Your task to perform on an android device: turn off improve location accuracy Image 0: 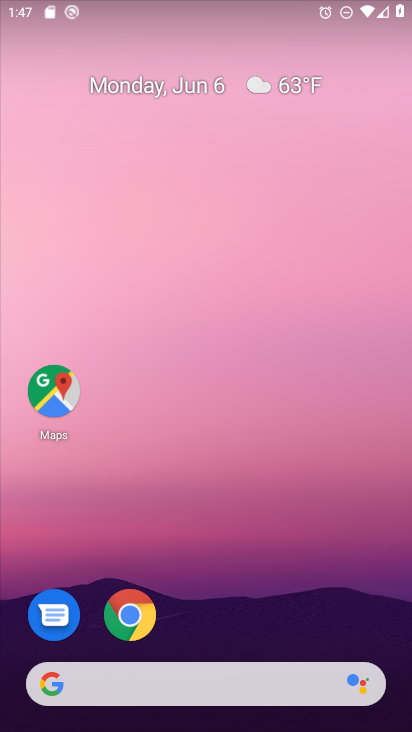
Step 0: click (283, 96)
Your task to perform on an android device: turn off improve location accuracy Image 1: 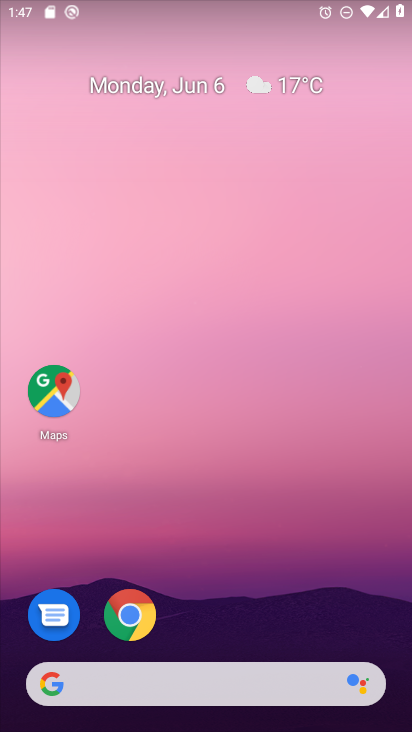
Step 1: drag from (309, 626) to (322, 5)
Your task to perform on an android device: turn off improve location accuracy Image 2: 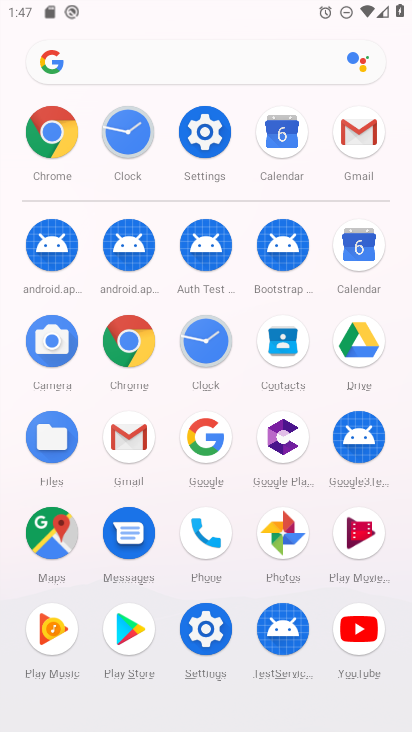
Step 2: click (190, 636)
Your task to perform on an android device: turn off improve location accuracy Image 3: 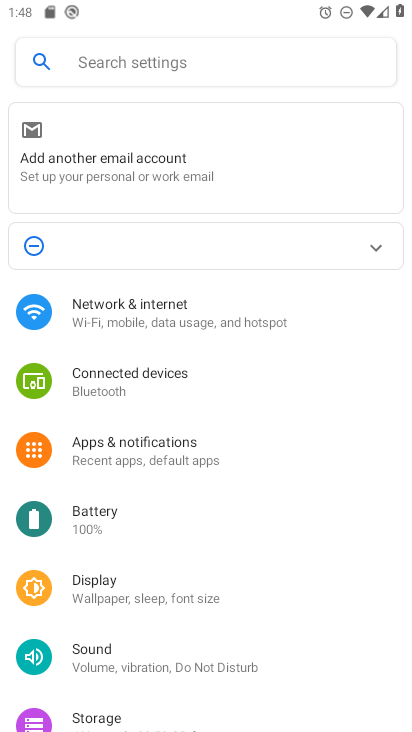
Step 3: drag from (160, 680) to (159, 352)
Your task to perform on an android device: turn off improve location accuracy Image 4: 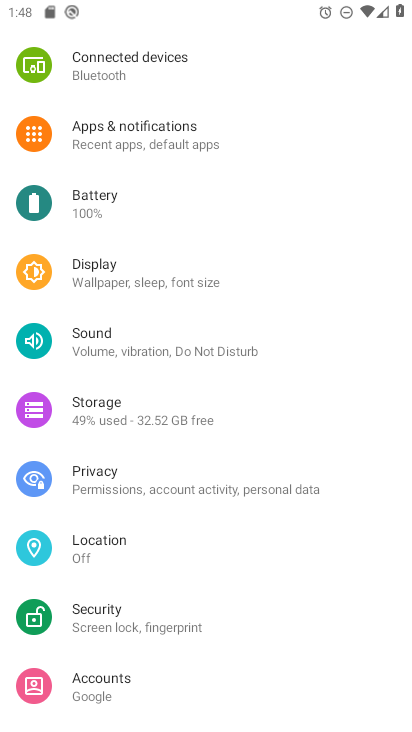
Step 4: click (106, 556)
Your task to perform on an android device: turn off improve location accuracy Image 5: 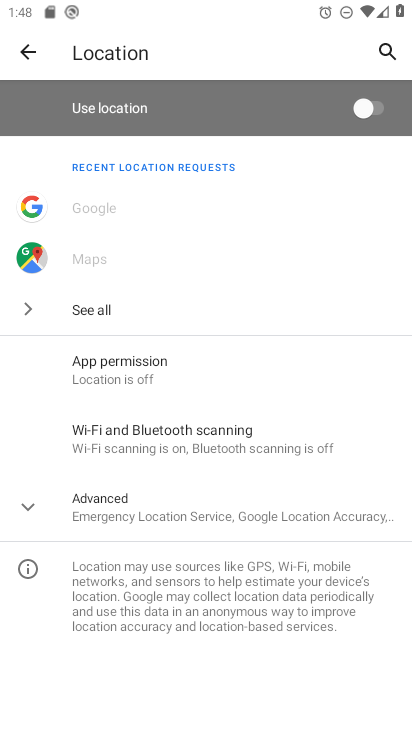
Step 5: click (166, 511)
Your task to perform on an android device: turn off improve location accuracy Image 6: 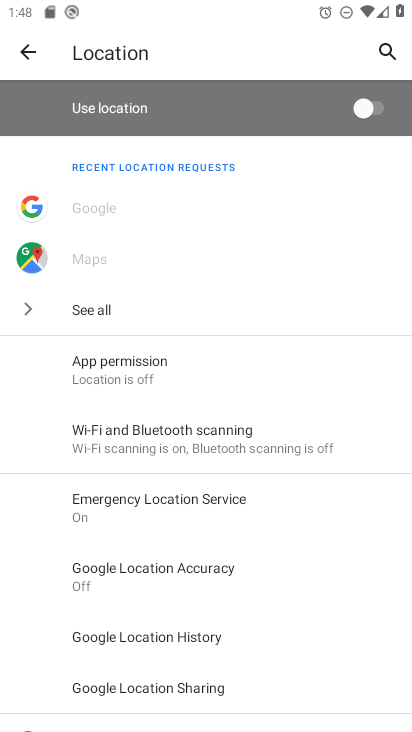
Step 6: click (206, 582)
Your task to perform on an android device: turn off improve location accuracy Image 7: 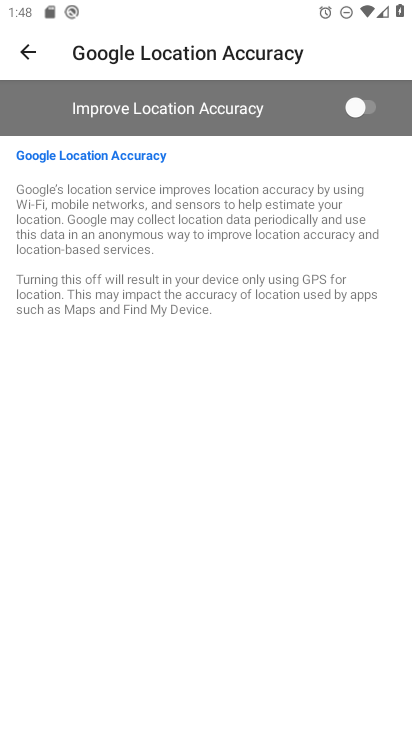
Step 7: task complete